Your task to perform on an android device: Open Youtube and go to "Your channel" Image 0: 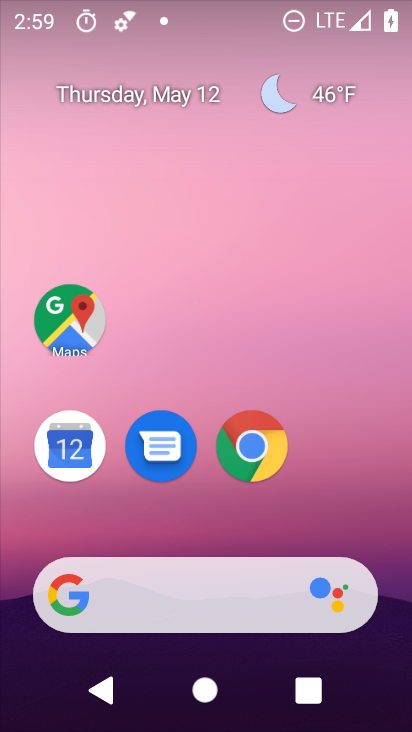
Step 0: drag from (208, 521) to (251, 236)
Your task to perform on an android device: Open Youtube and go to "Your channel" Image 1: 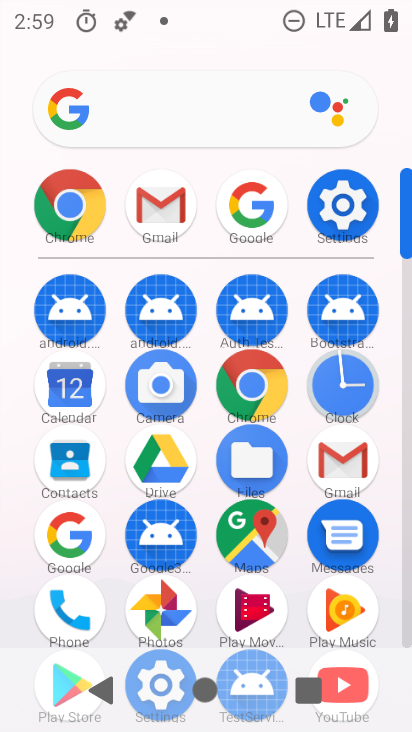
Step 1: drag from (300, 543) to (311, 309)
Your task to perform on an android device: Open Youtube and go to "Your channel" Image 2: 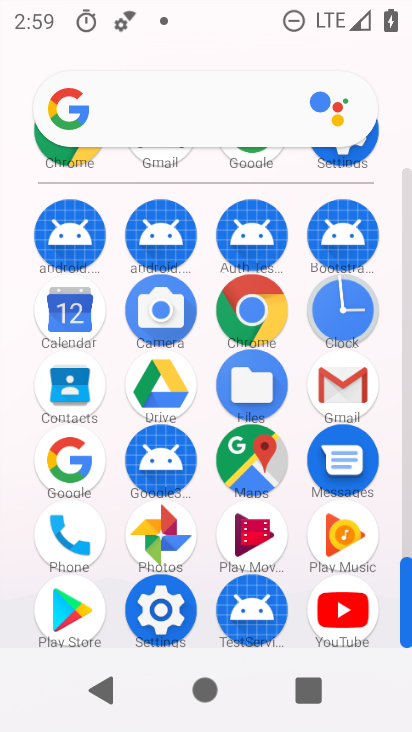
Step 2: click (351, 596)
Your task to perform on an android device: Open Youtube and go to "Your channel" Image 3: 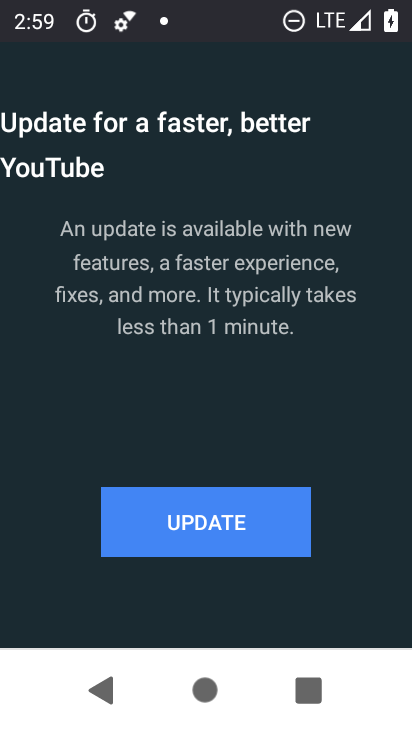
Step 3: click (222, 535)
Your task to perform on an android device: Open Youtube and go to "Your channel" Image 4: 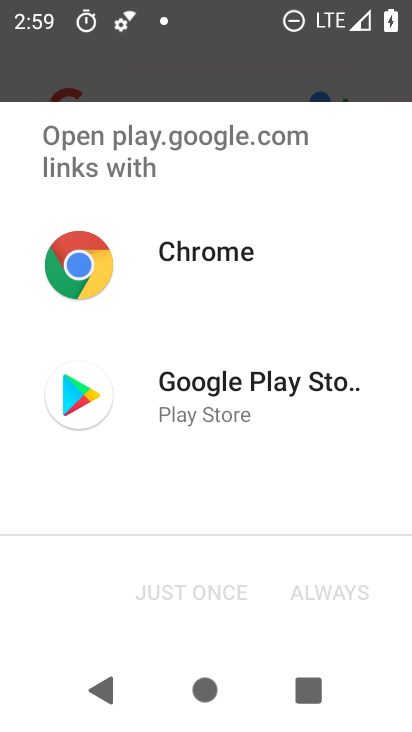
Step 4: click (185, 385)
Your task to perform on an android device: Open Youtube and go to "Your channel" Image 5: 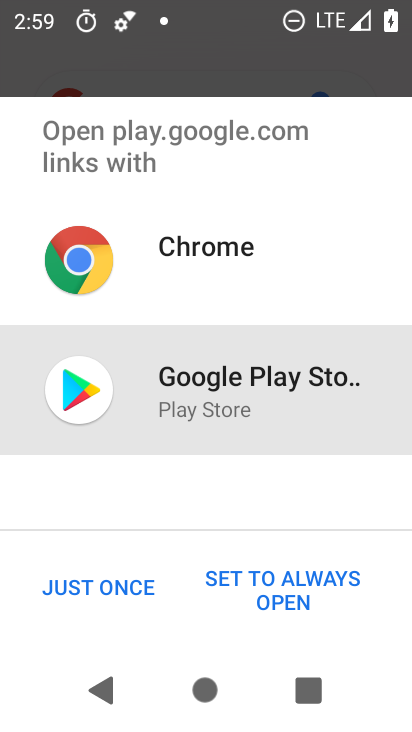
Step 5: click (104, 590)
Your task to perform on an android device: Open Youtube and go to "Your channel" Image 6: 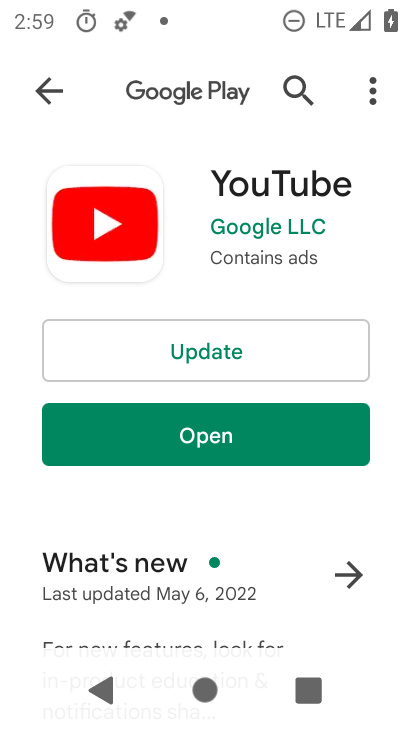
Step 6: click (173, 367)
Your task to perform on an android device: Open Youtube and go to "Your channel" Image 7: 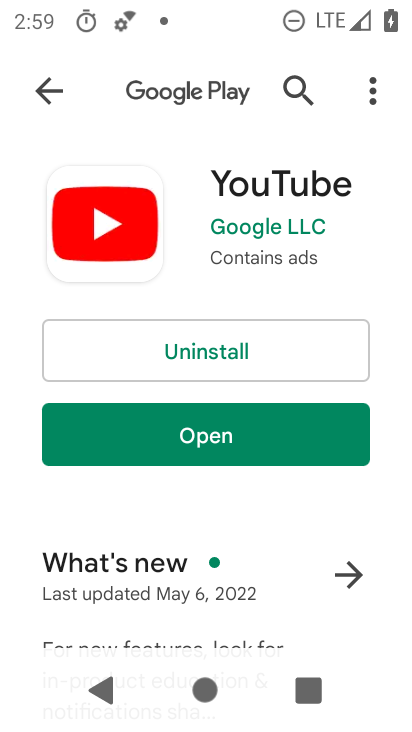
Step 7: click (229, 426)
Your task to perform on an android device: Open Youtube and go to "Your channel" Image 8: 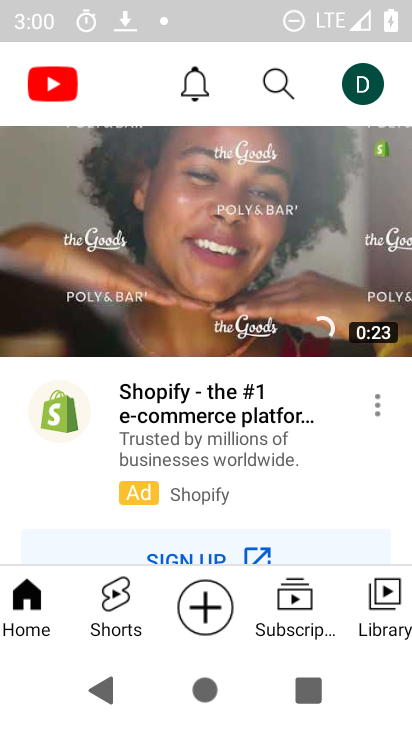
Step 8: click (376, 78)
Your task to perform on an android device: Open Youtube and go to "Your channel" Image 9: 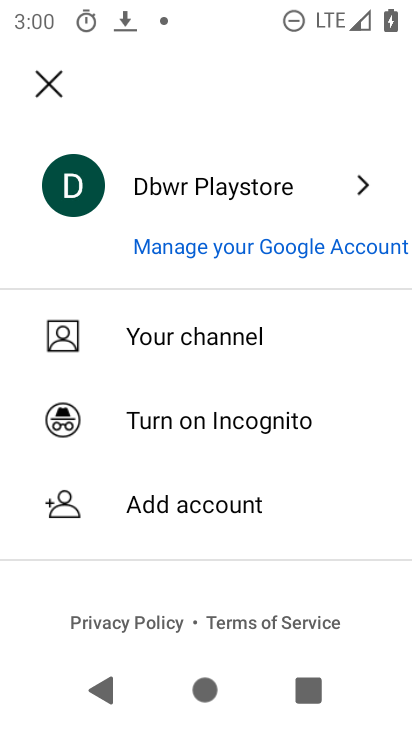
Step 9: click (218, 330)
Your task to perform on an android device: Open Youtube and go to "Your channel" Image 10: 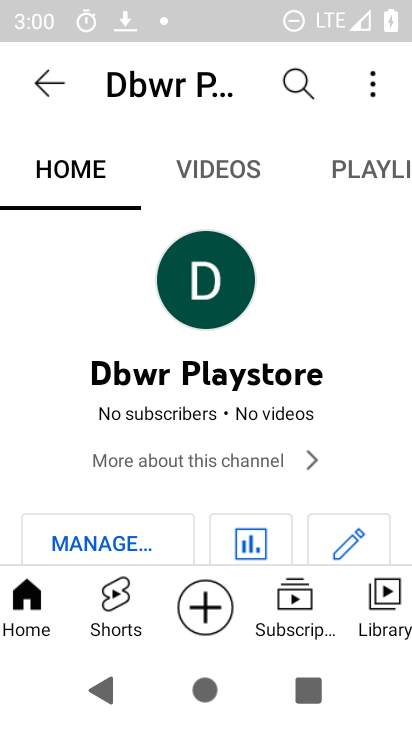
Step 10: task complete